Your task to perform on an android device: Open ESPN.com Image 0: 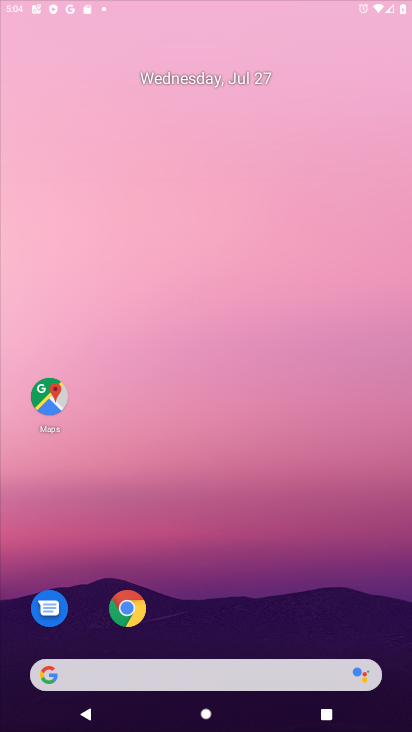
Step 0: click (173, 656)
Your task to perform on an android device: Open ESPN.com Image 1: 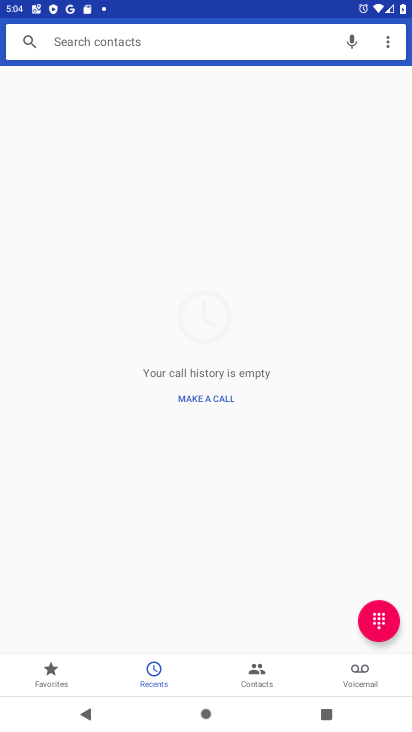
Step 1: press home button
Your task to perform on an android device: Open ESPN.com Image 2: 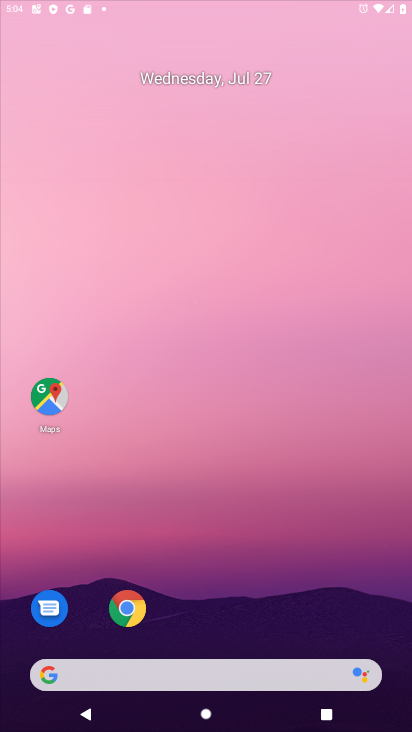
Step 2: press home button
Your task to perform on an android device: Open ESPN.com Image 3: 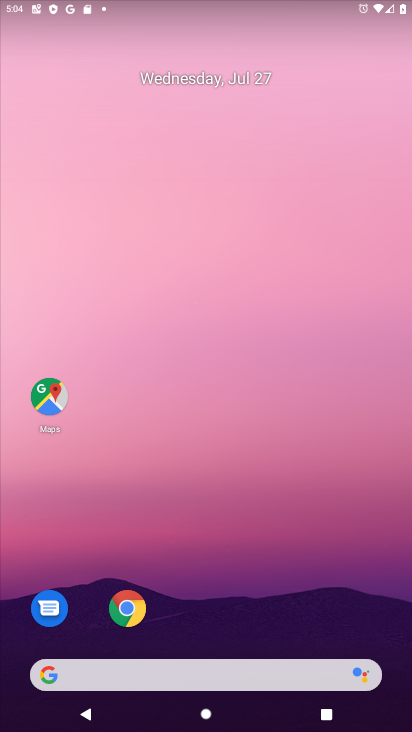
Step 3: click (131, 621)
Your task to perform on an android device: Open ESPN.com Image 4: 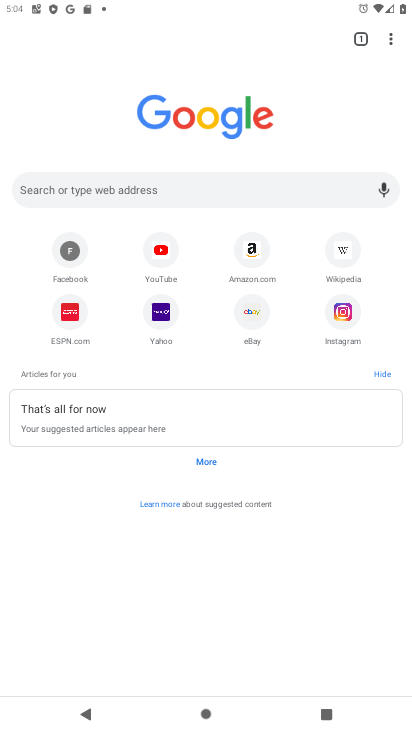
Step 4: click (74, 322)
Your task to perform on an android device: Open ESPN.com Image 5: 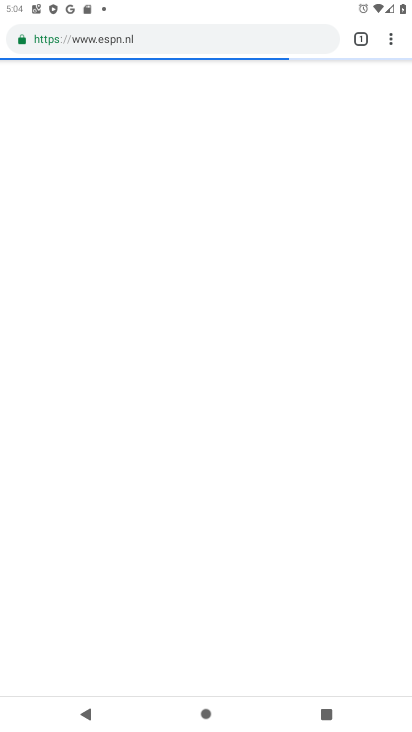
Step 5: task complete